Your task to perform on an android device: turn off picture-in-picture Image 0: 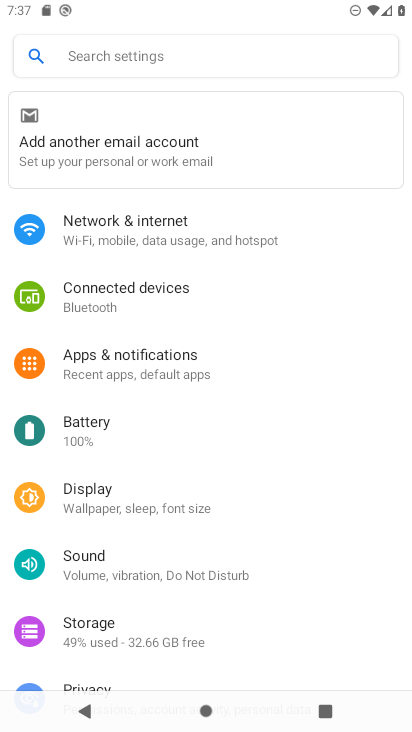
Step 0: drag from (322, 499) to (336, 368)
Your task to perform on an android device: turn off picture-in-picture Image 1: 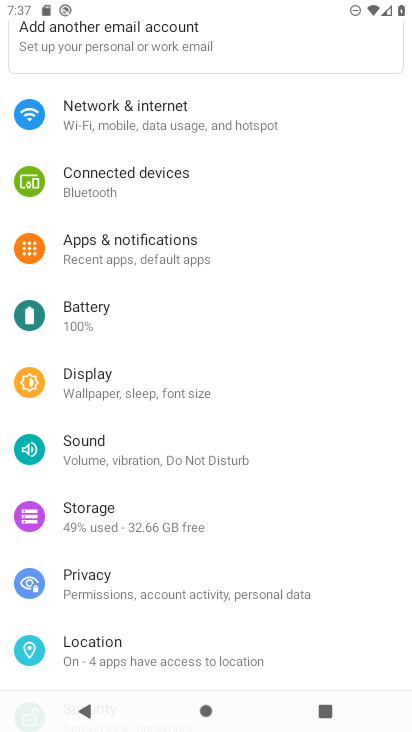
Step 1: drag from (347, 475) to (350, 275)
Your task to perform on an android device: turn off picture-in-picture Image 2: 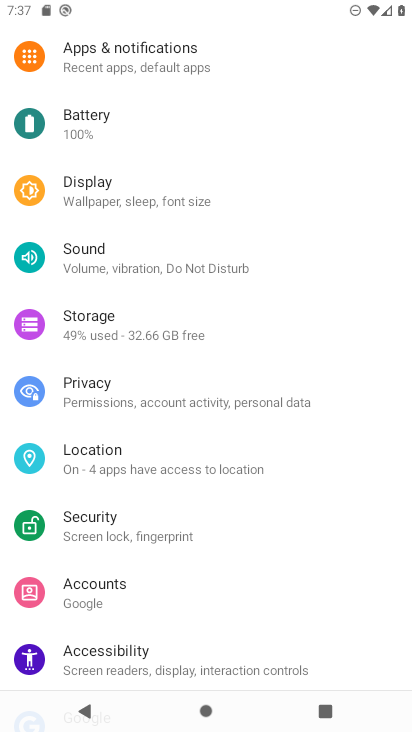
Step 2: drag from (355, 475) to (351, 362)
Your task to perform on an android device: turn off picture-in-picture Image 3: 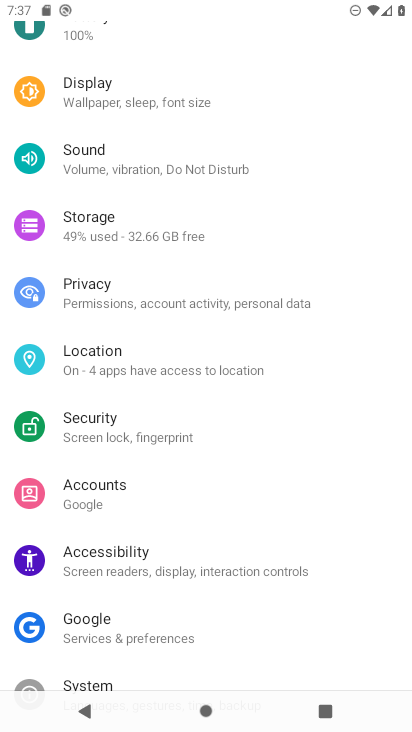
Step 3: drag from (357, 255) to (359, 377)
Your task to perform on an android device: turn off picture-in-picture Image 4: 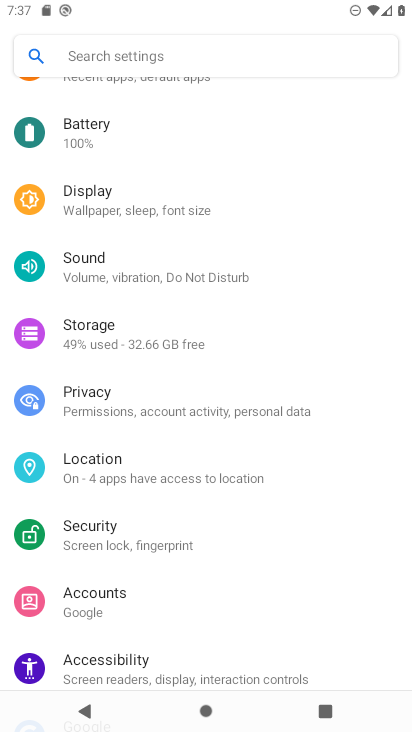
Step 4: drag from (350, 253) to (353, 378)
Your task to perform on an android device: turn off picture-in-picture Image 5: 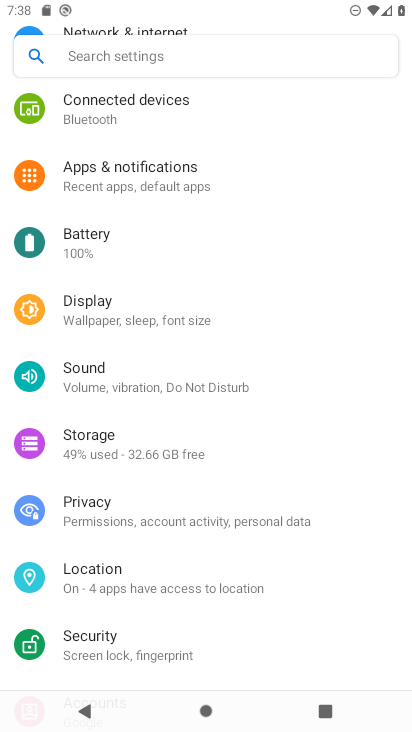
Step 5: drag from (350, 247) to (369, 466)
Your task to perform on an android device: turn off picture-in-picture Image 6: 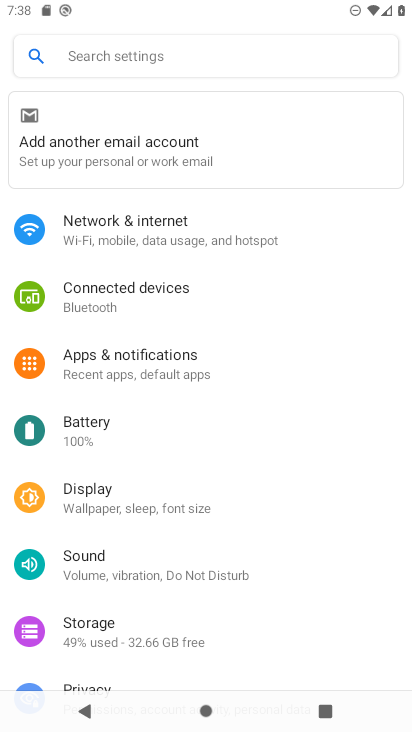
Step 6: click (219, 373)
Your task to perform on an android device: turn off picture-in-picture Image 7: 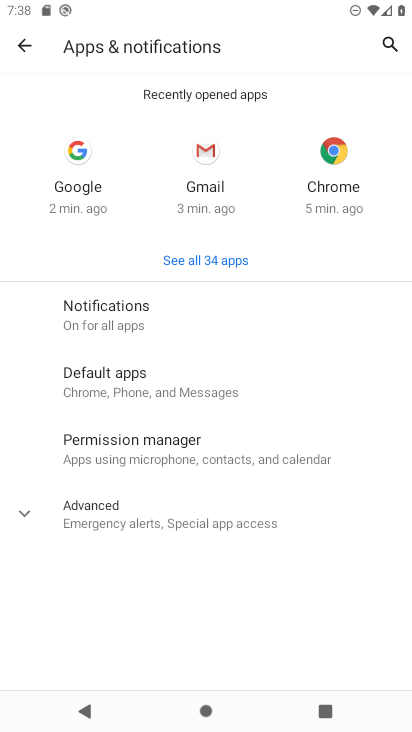
Step 7: click (234, 509)
Your task to perform on an android device: turn off picture-in-picture Image 8: 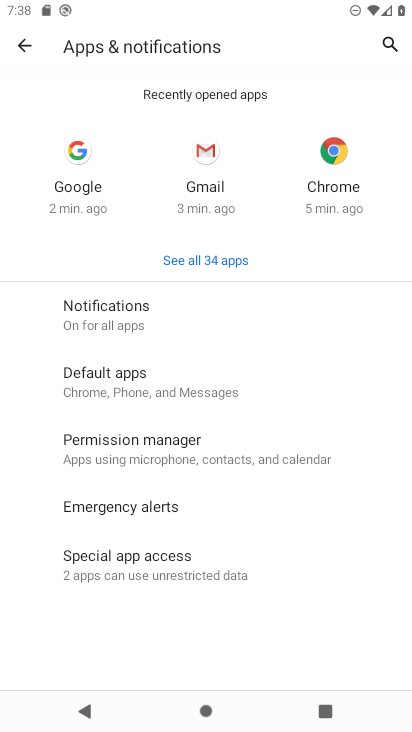
Step 8: click (226, 562)
Your task to perform on an android device: turn off picture-in-picture Image 9: 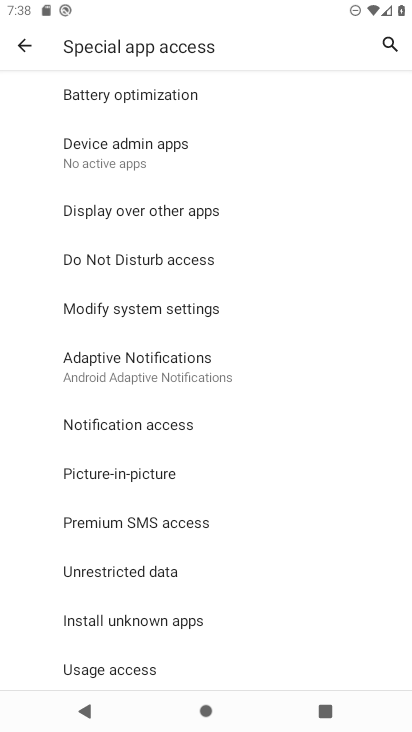
Step 9: drag from (330, 517) to (337, 437)
Your task to perform on an android device: turn off picture-in-picture Image 10: 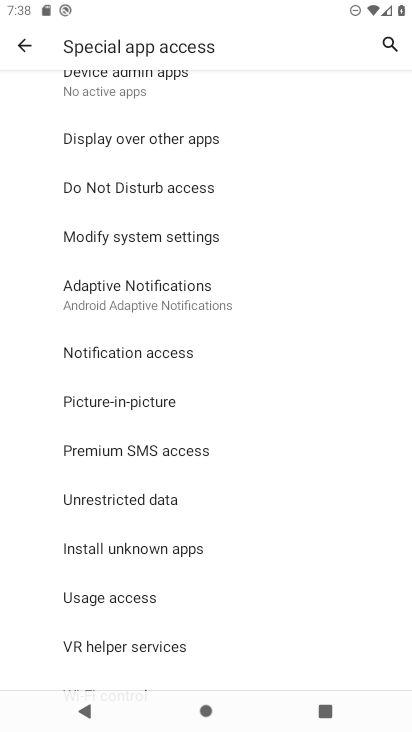
Step 10: click (214, 402)
Your task to perform on an android device: turn off picture-in-picture Image 11: 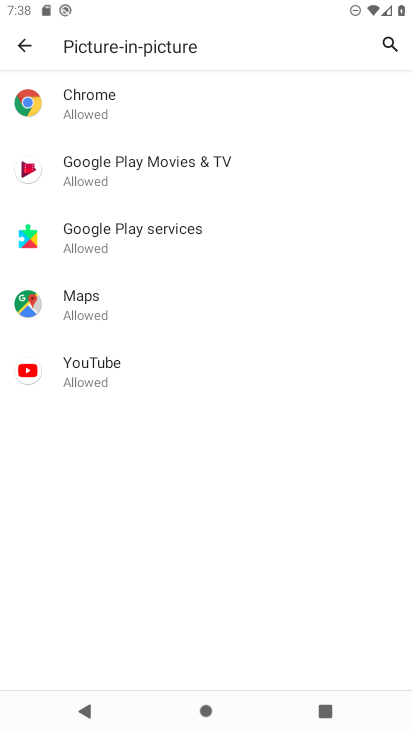
Step 11: click (117, 368)
Your task to perform on an android device: turn off picture-in-picture Image 12: 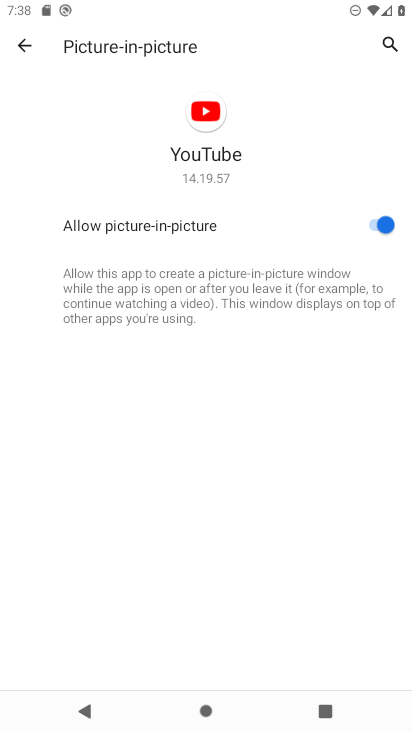
Step 12: click (383, 219)
Your task to perform on an android device: turn off picture-in-picture Image 13: 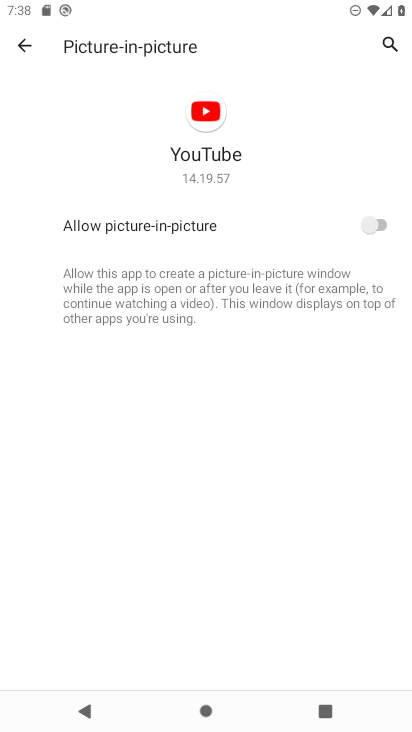
Step 13: task complete